Your task to perform on an android device: install app "LiveIn - Share Your Moment" Image 0: 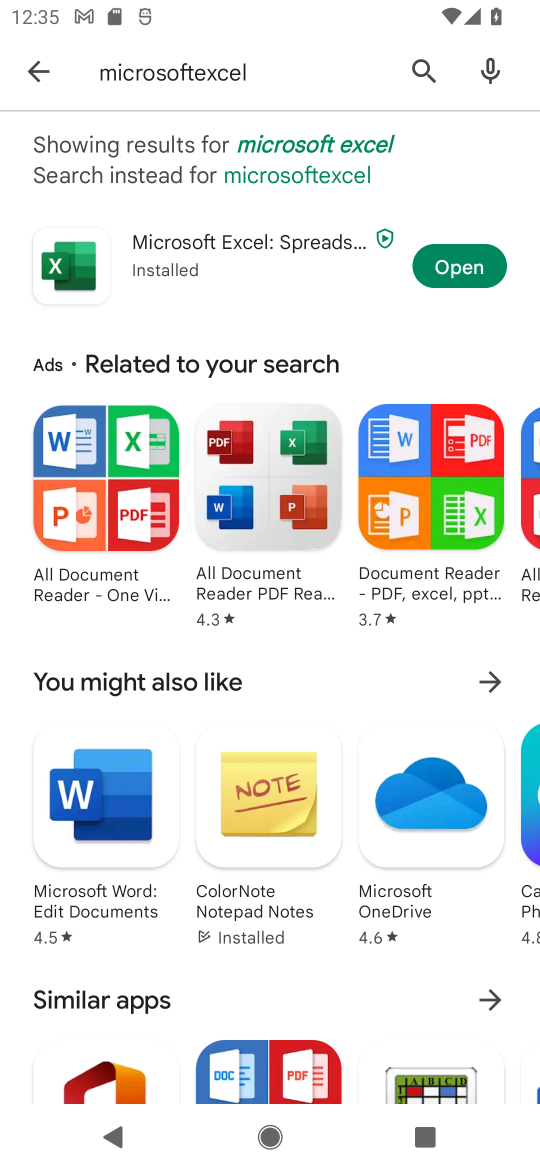
Step 0: press home button
Your task to perform on an android device: install app "LiveIn - Share Your Moment" Image 1: 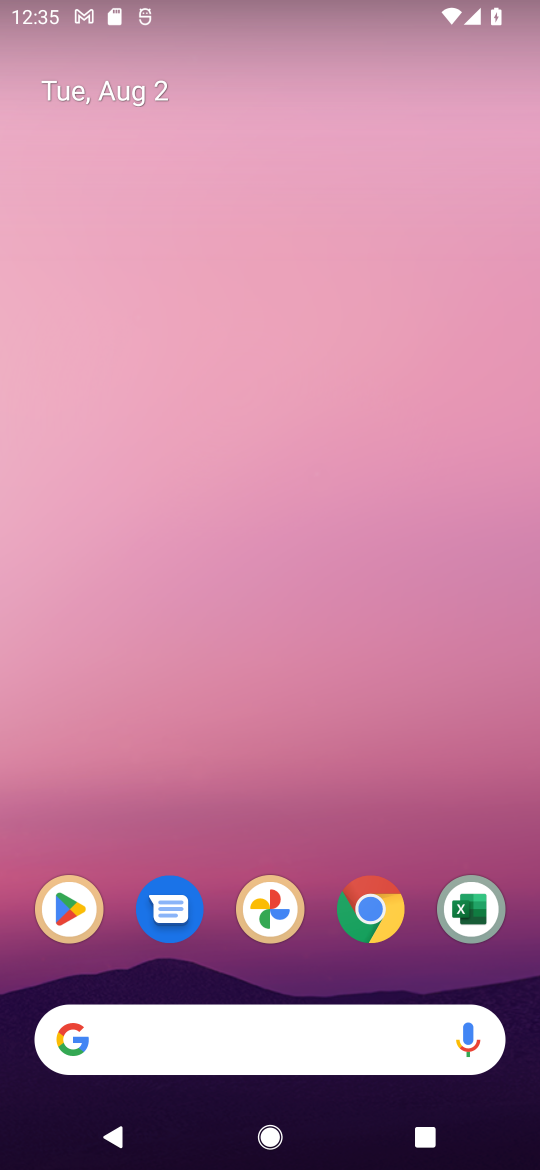
Step 1: click (78, 906)
Your task to perform on an android device: install app "LiveIn - Share Your Moment" Image 2: 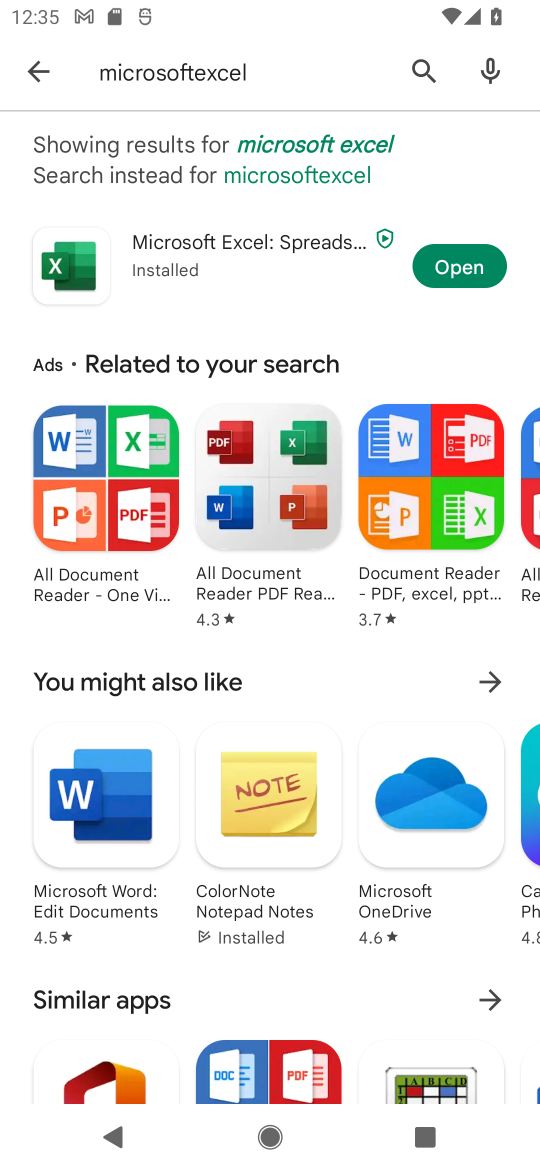
Step 2: click (426, 67)
Your task to perform on an android device: install app "LiveIn - Share Your Moment" Image 3: 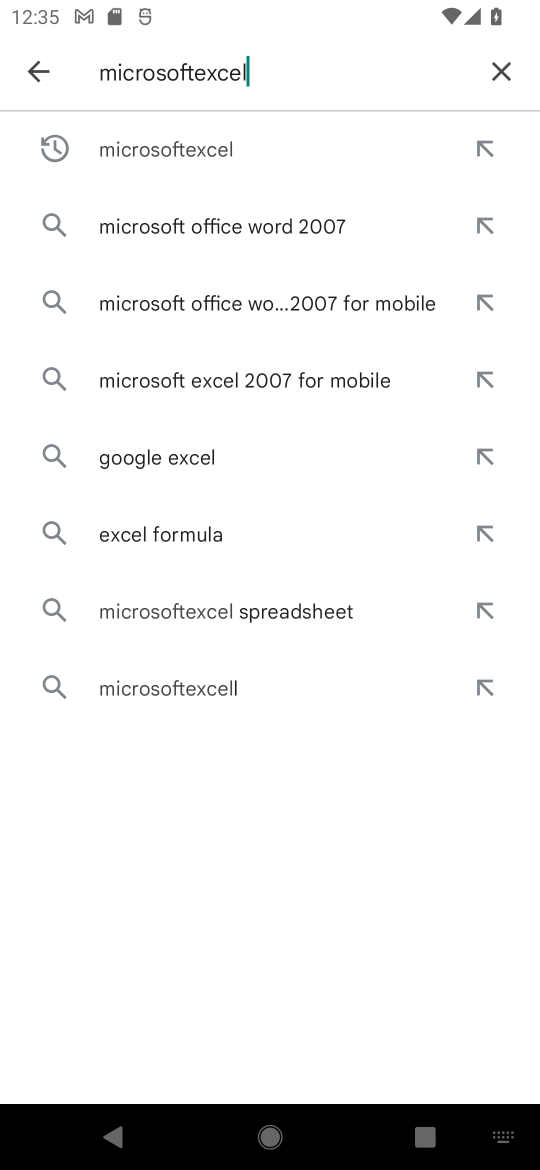
Step 3: click (511, 71)
Your task to perform on an android device: install app "LiveIn - Share Your Moment" Image 4: 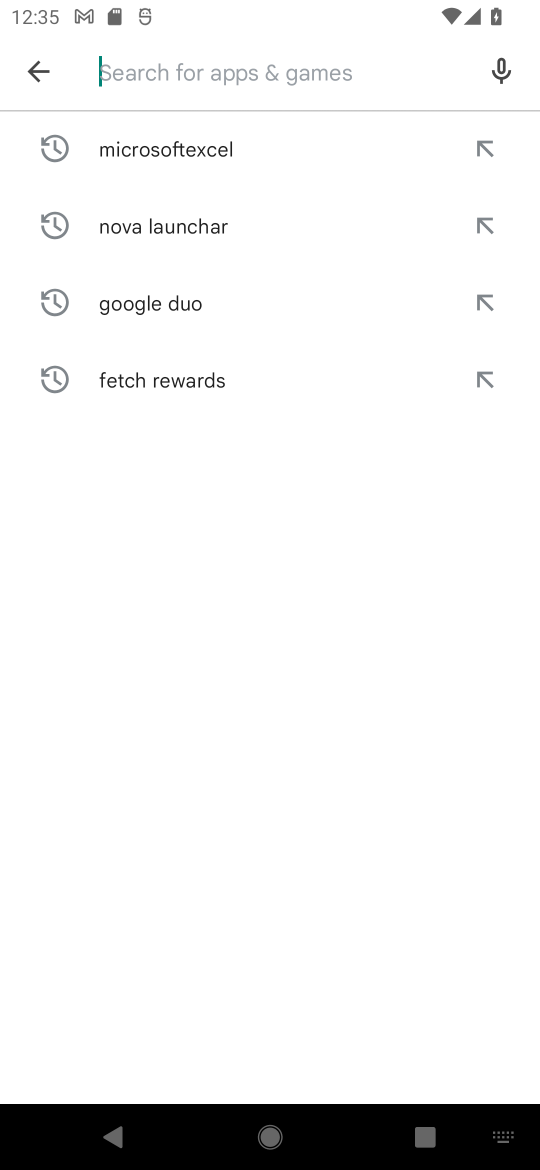
Step 4: type "LiveIn"
Your task to perform on an android device: install app "LiveIn - Share Your Moment" Image 5: 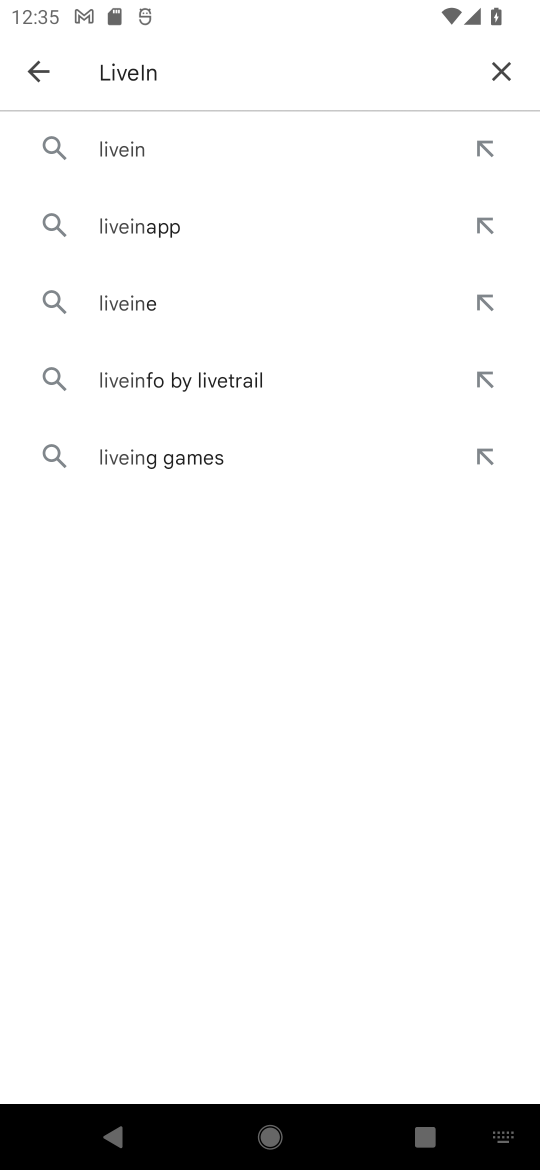
Step 5: click (117, 147)
Your task to perform on an android device: install app "LiveIn - Share Your Moment" Image 6: 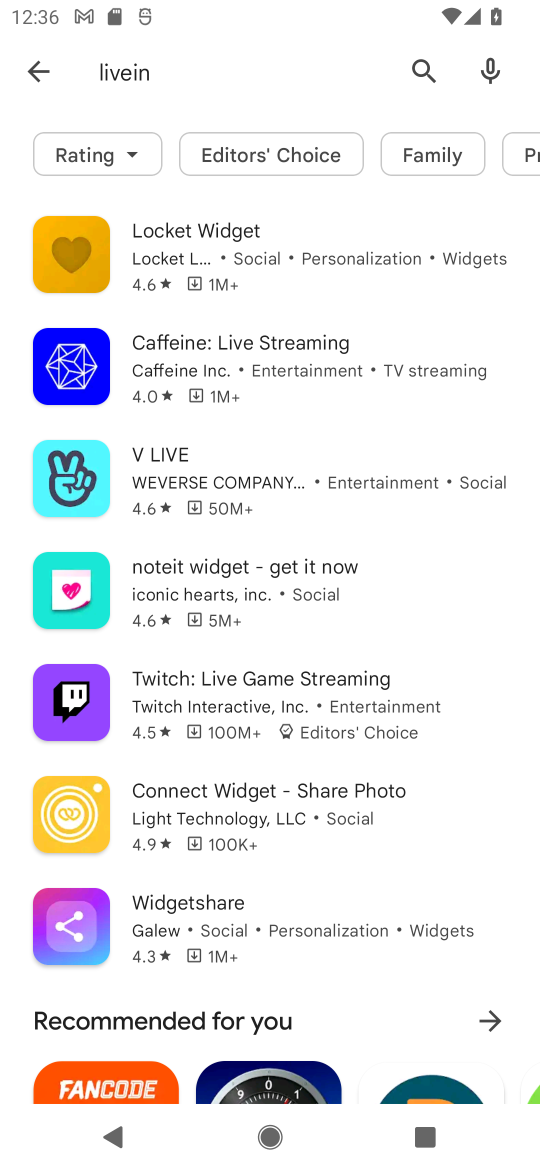
Step 6: type " Share Your Moment""
Your task to perform on an android device: install app "LiveIn - Share Your Moment" Image 7: 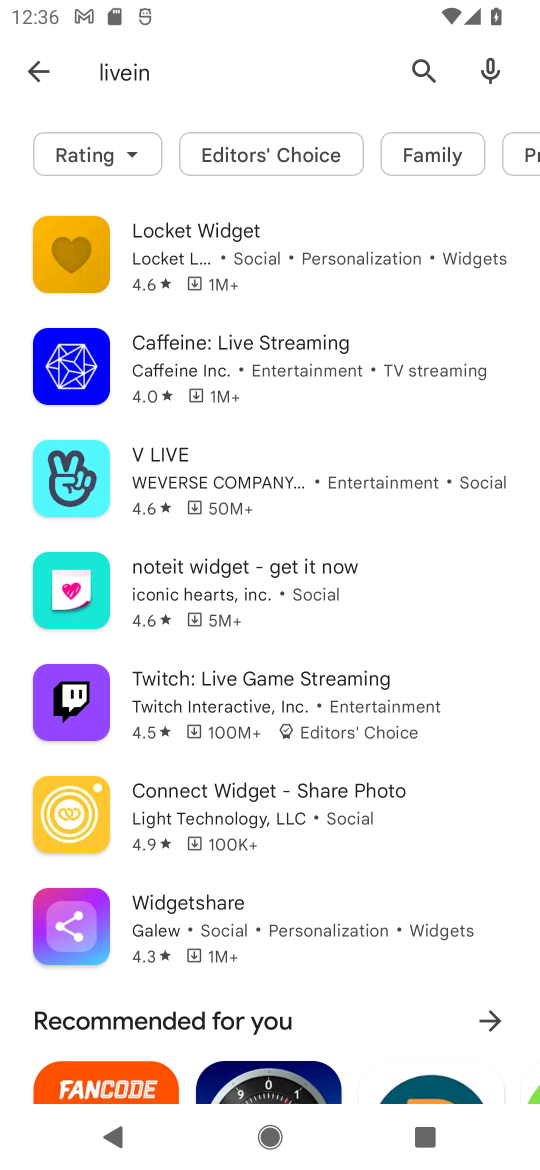
Step 7: task complete